Your task to perform on an android device: turn on javascript in the chrome app Image 0: 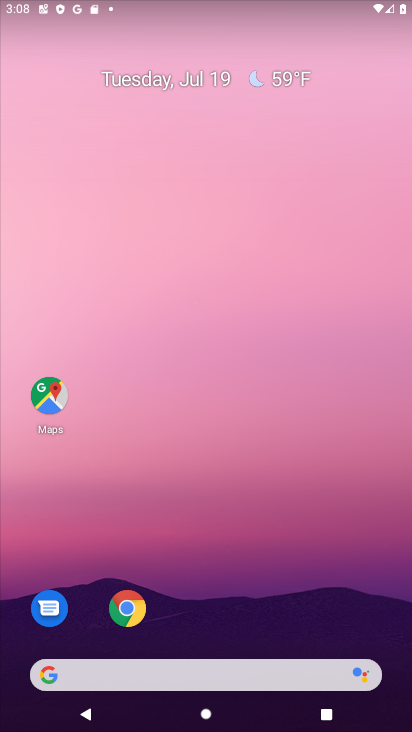
Step 0: click (122, 607)
Your task to perform on an android device: turn on javascript in the chrome app Image 1: 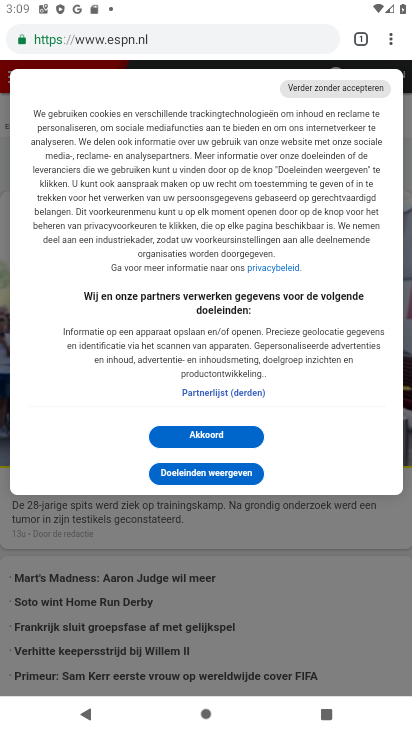
Step 1: click (394, 40)
Your task to perform on an android device: turn on javascript in the chrome app Image 2: 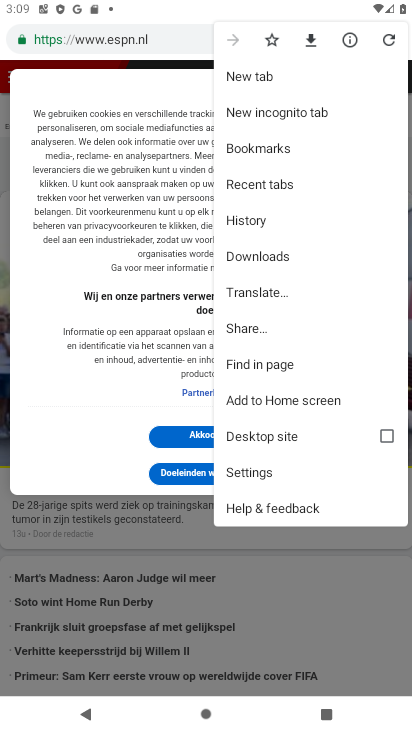
Step 2: click (281, 469)
Your task to perform on an android device: turn on javascript in the chrome app Image 3: 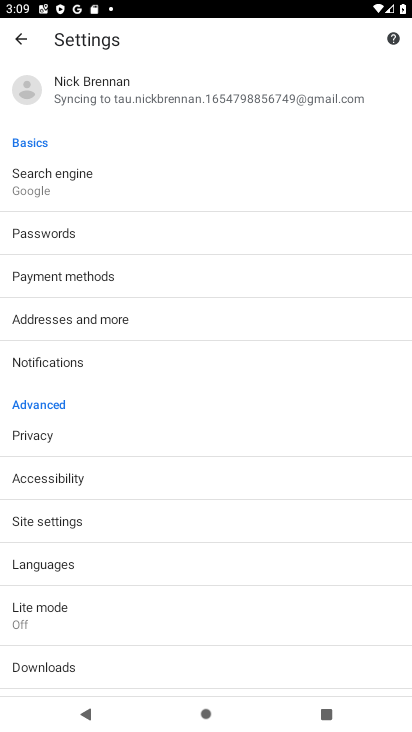
Step 3: click (121, 517)
Your task to perform on an android device: turn on javascript in the chrome app Image 4: 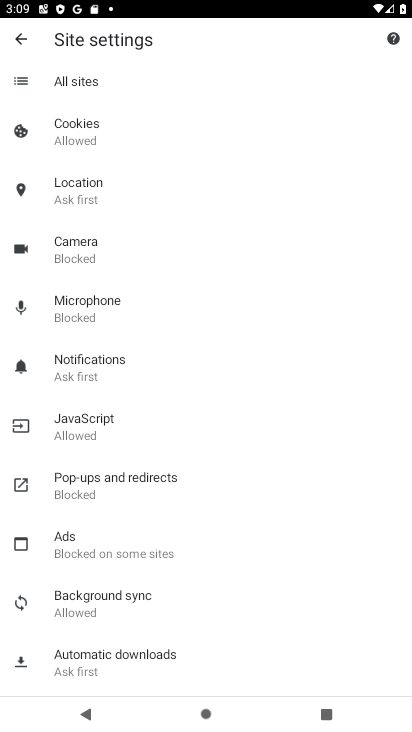
Step 4: click (154, 415)
Your task to perform on an android device: turn on javascript in the chrome app Image 5: 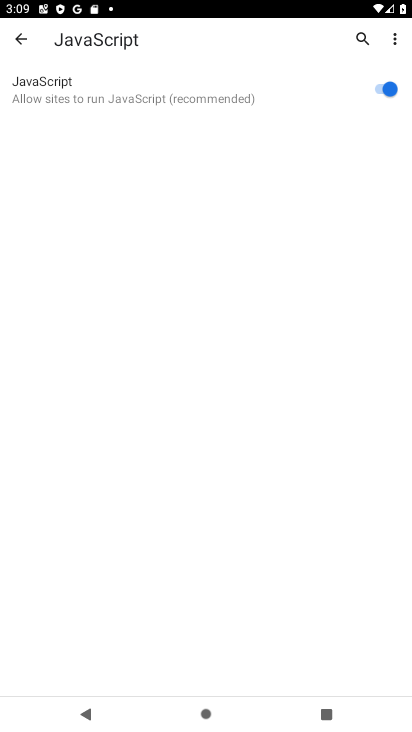
Step 5: task complete